Your task to perform on an android device: When is my next meeting? Image 0: 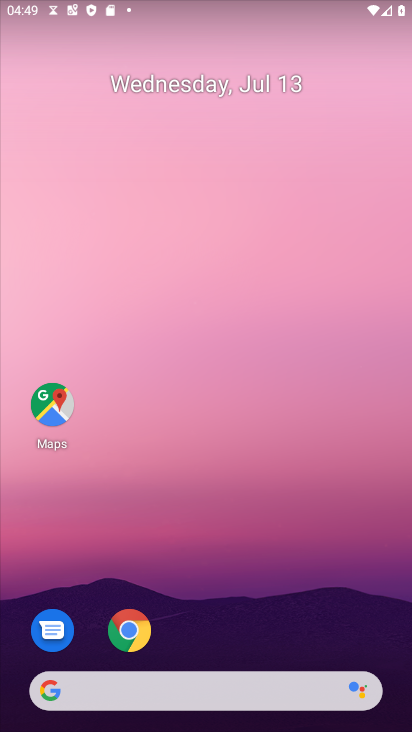
Step 0: drag from (301, 706) to (291, 28)
Your task to perform on an android device: When is my next meeting? Image 1: 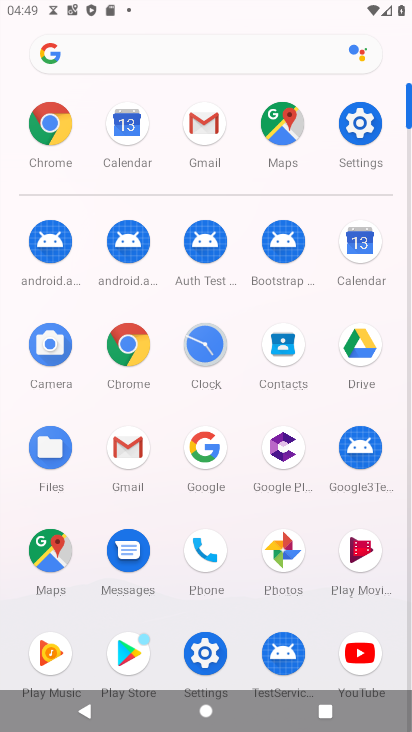
Step 1: click (365, 228)
Your task to perform on an android device: When is my next meeting? Image 2: 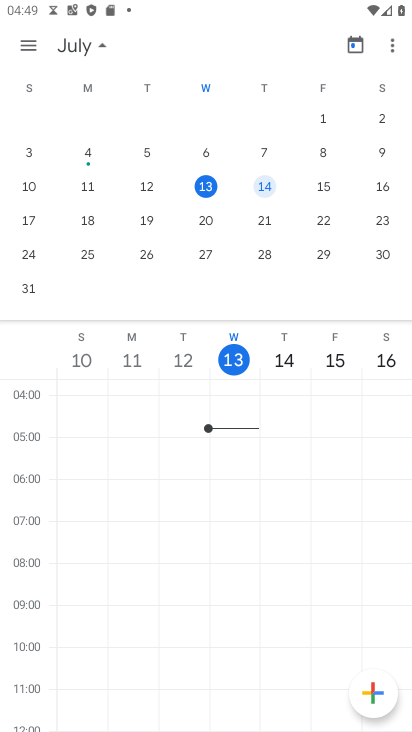
Step 2: click (262, 184)
Your task to perform on an android device: When is my next meeting? Image 3: 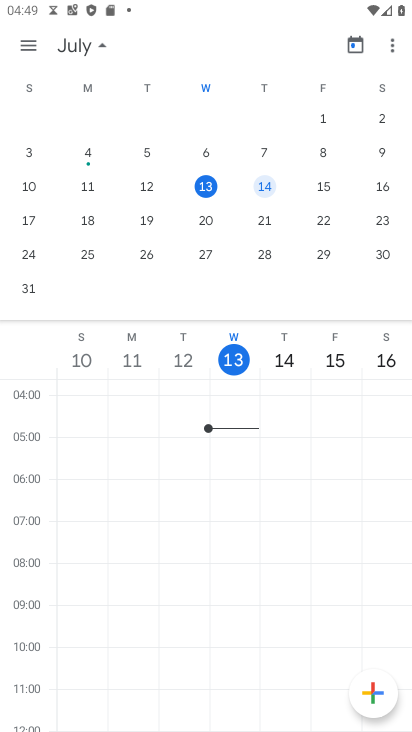
Step 3: task complete